Your task to perform on an android device: Turn on the flashlight Image 0: 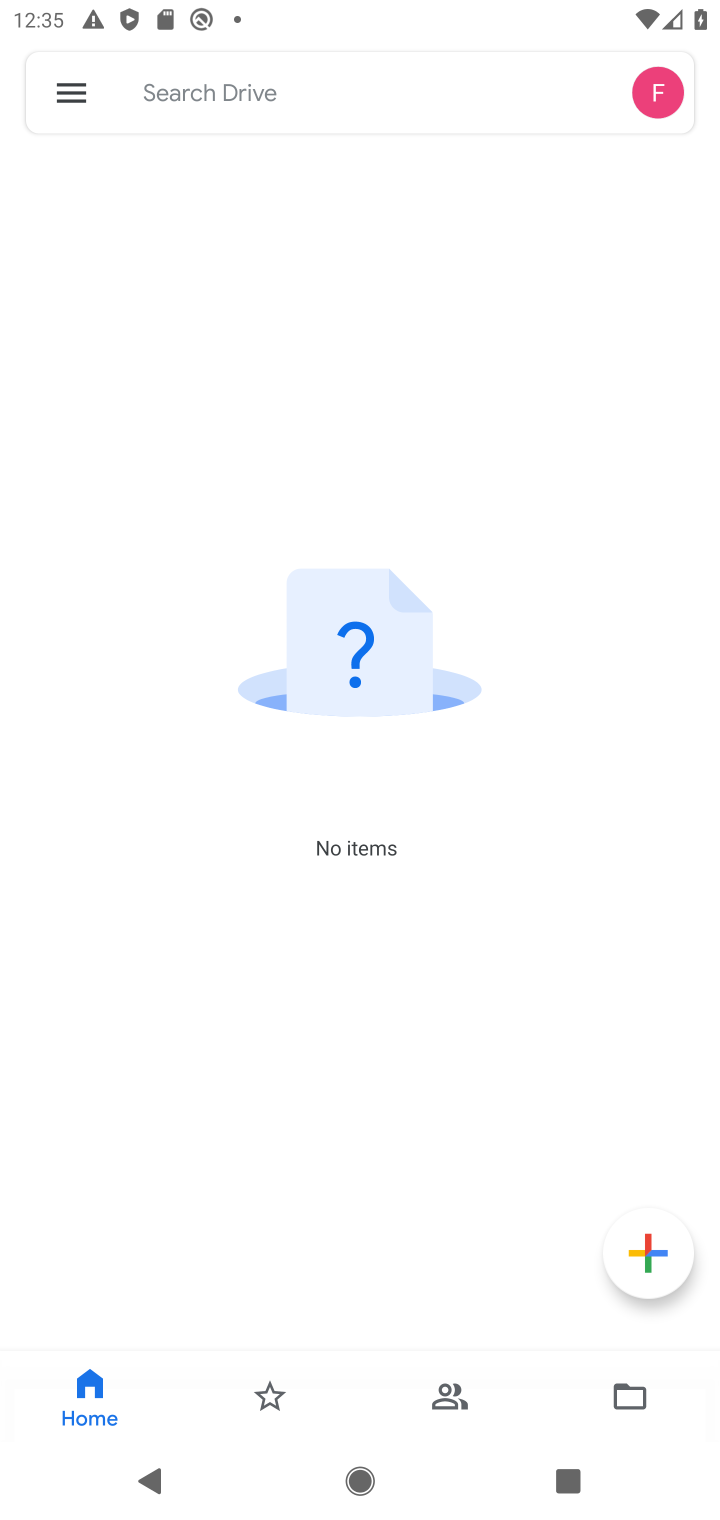
Step 0: press home button
Your task to perform on an android device: Turn on the flashlight Image 1: 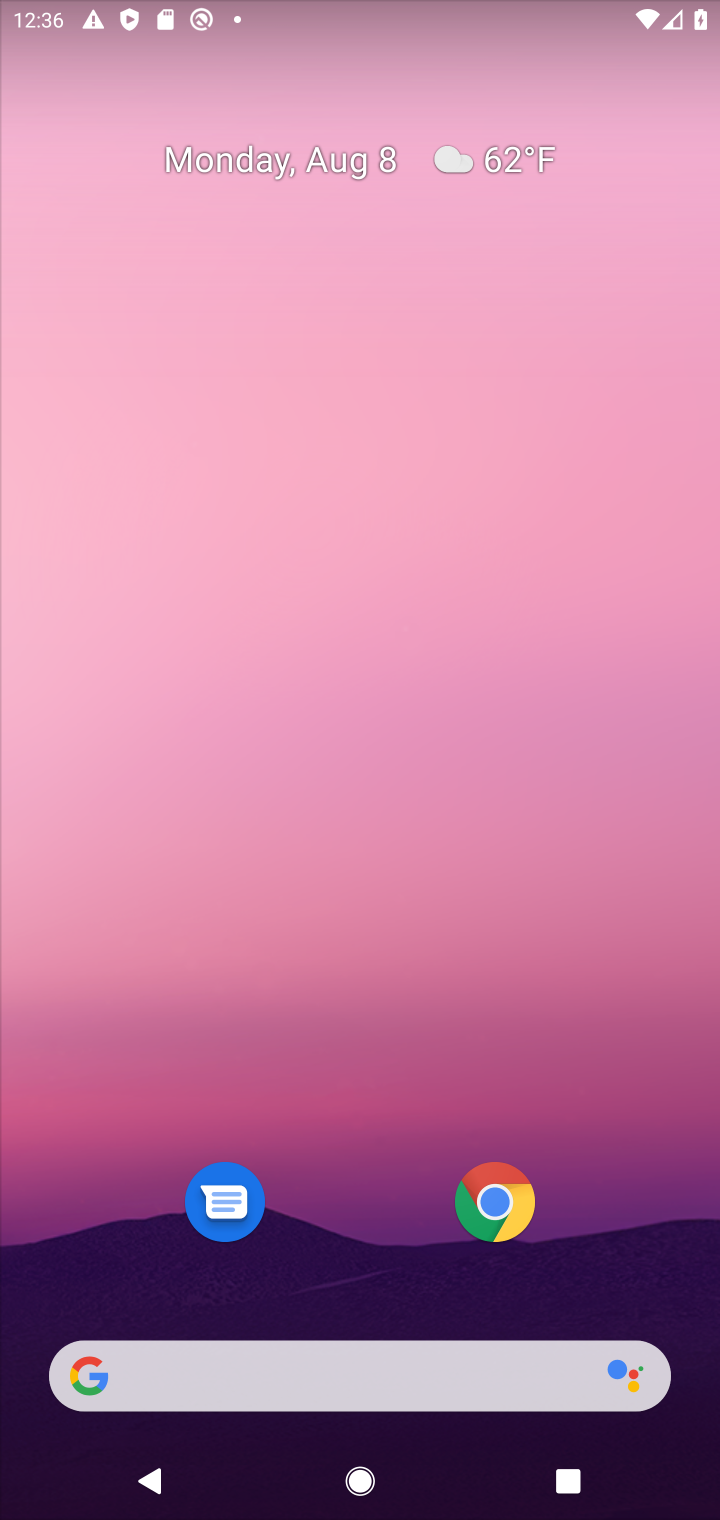
Step 1: task complete